Your task to perform on an android device: clear history in the chrome app Image 0: 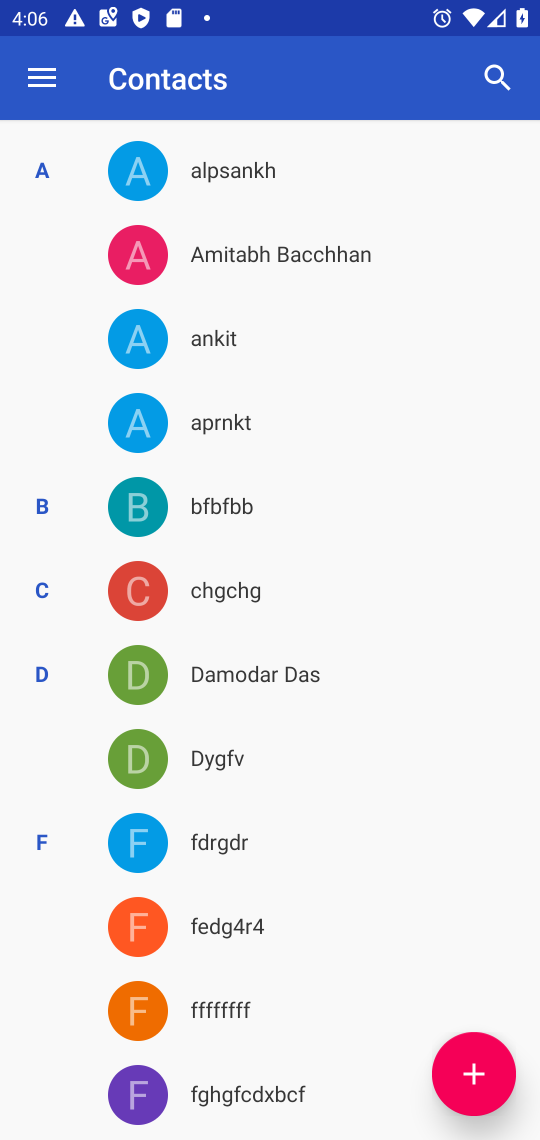
Step 0: press home button
Your task to perform on an android device: clear history in the chrome app Image 1: 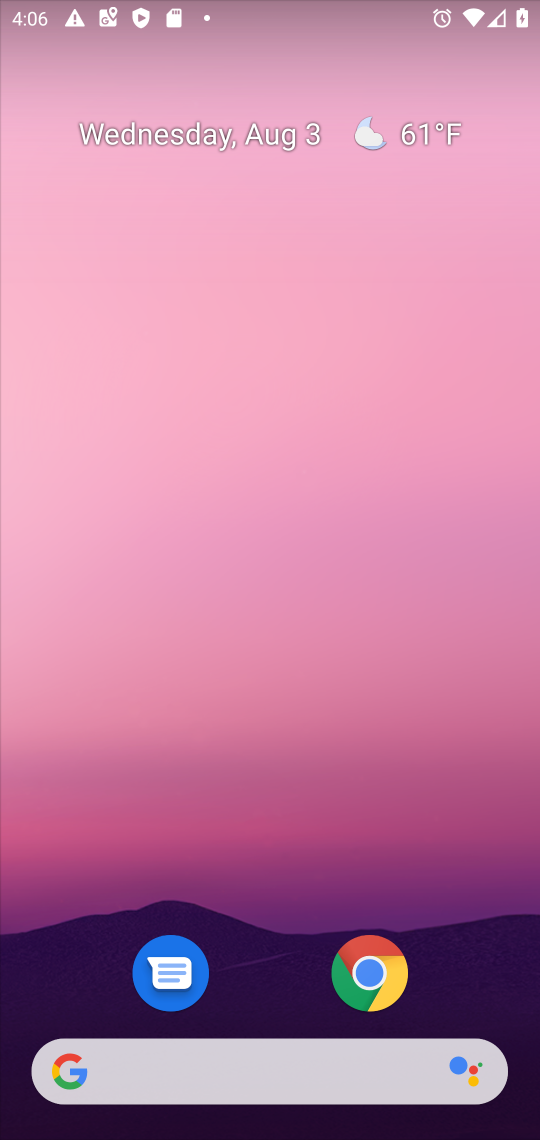
Step 1: click (377, 976)
Your task to perform on an android device: clear history in the chrome app Image 2: 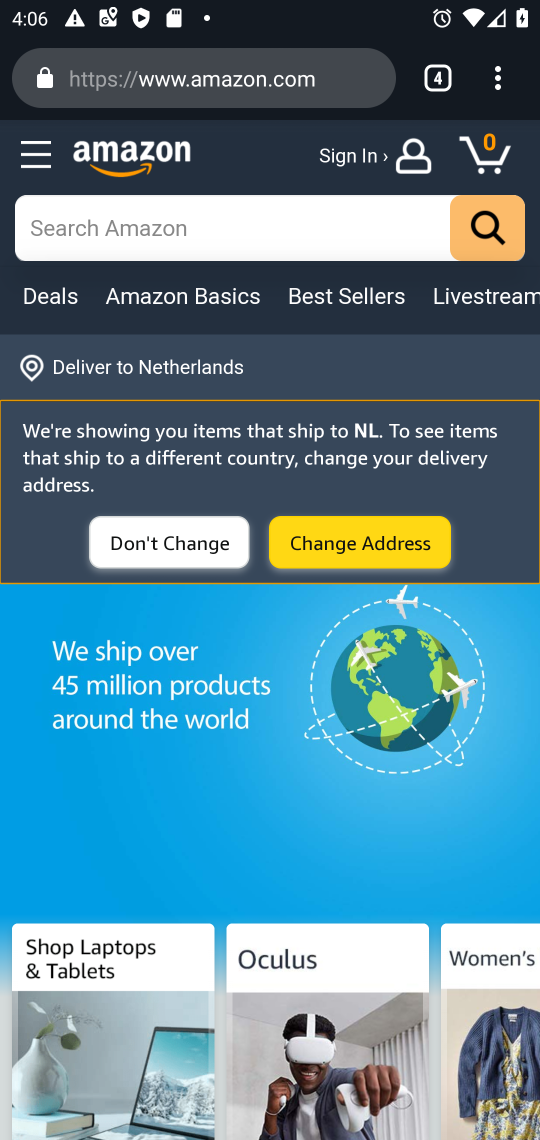
Step 2: click (499, 92)
Your task to perform on an android device: clear history in the chrome app Image 3: 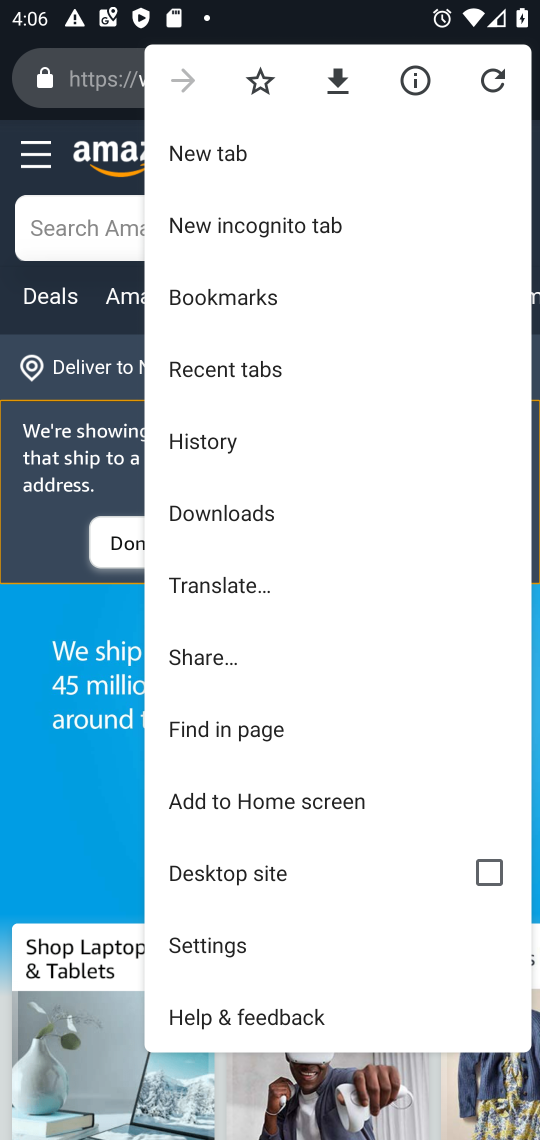
Step 3: click (214, 438)
Your task to perform on an android device: clear history in the chrome app Image 4: 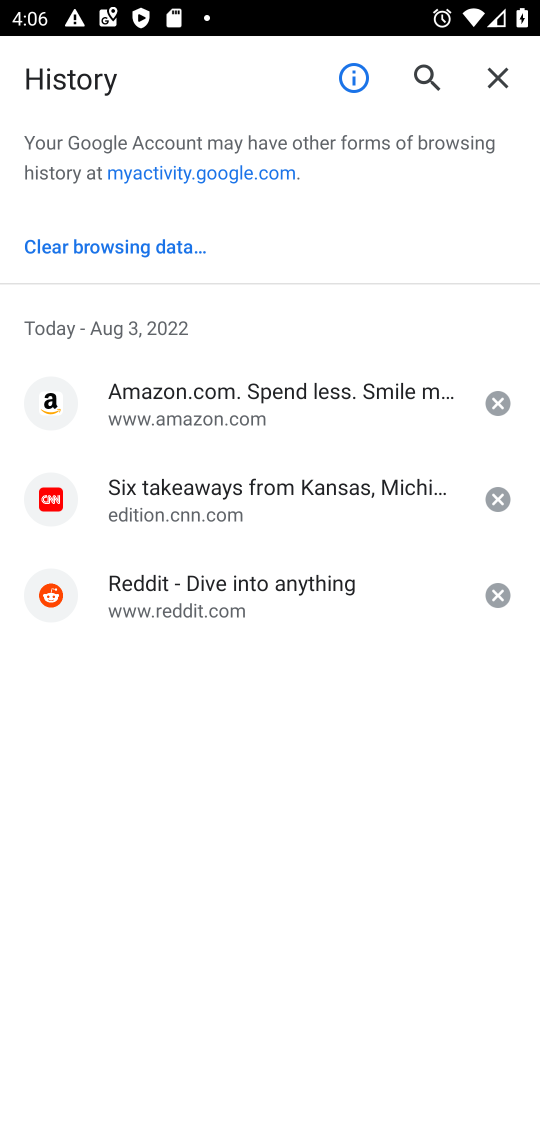
Step 4: click (128, 243)
Your task to perform on an android device: clear history in the chrome app Image 5: 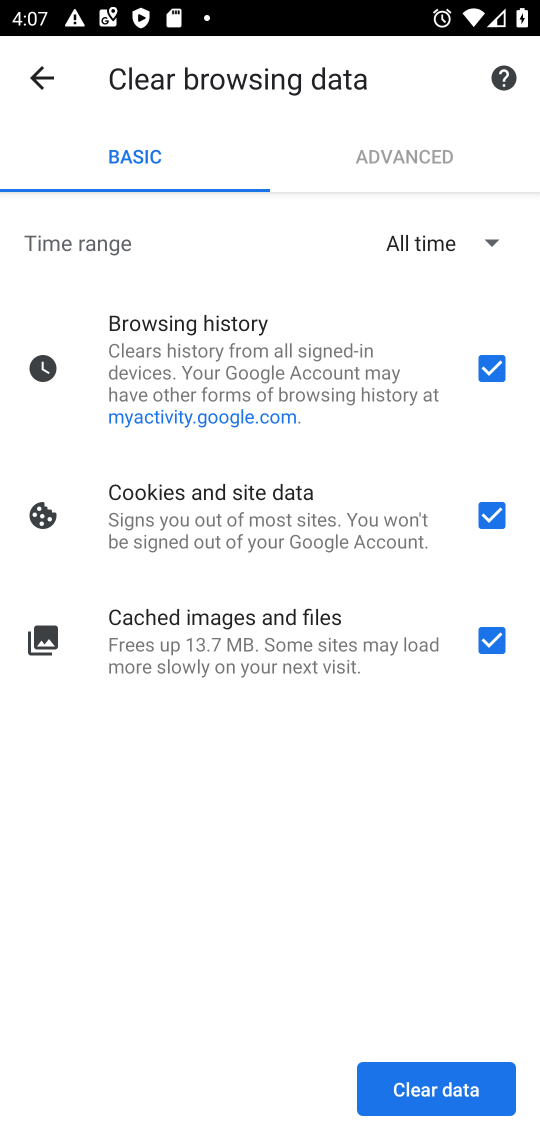
Step 5: click (445, 1083)
Your task to perform on an android device: clear history in the chrome app Image 6: 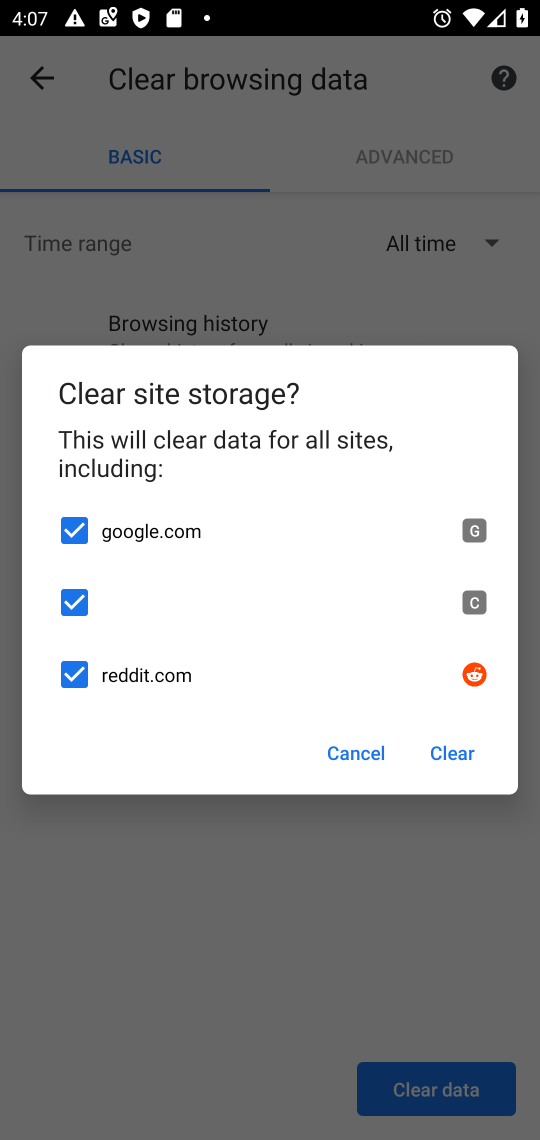
Step 6: click (454, 747)
Your task to perform on an android device: clear history in the chrome app Image 7: 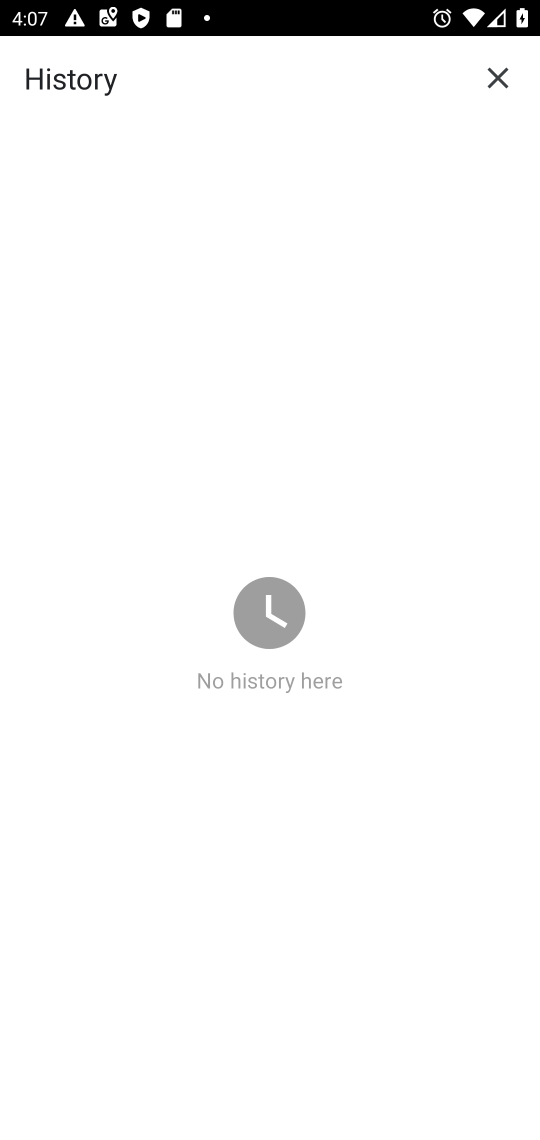
Step 7: task complete